Your task to perform on an android device: Open Amazon Image 0: 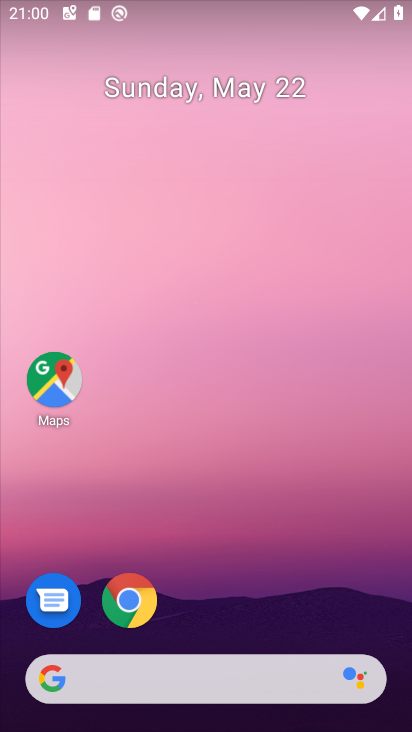
Step 0: click (132, 606)
Your task to perform on an android device: Open Amazon Image 1: 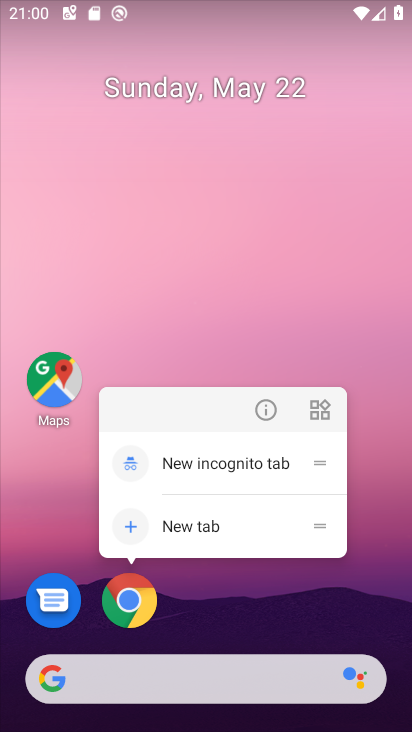
Step 1: click (132, 606)
Your task to perform on an android device: Open Amazon Image 2: 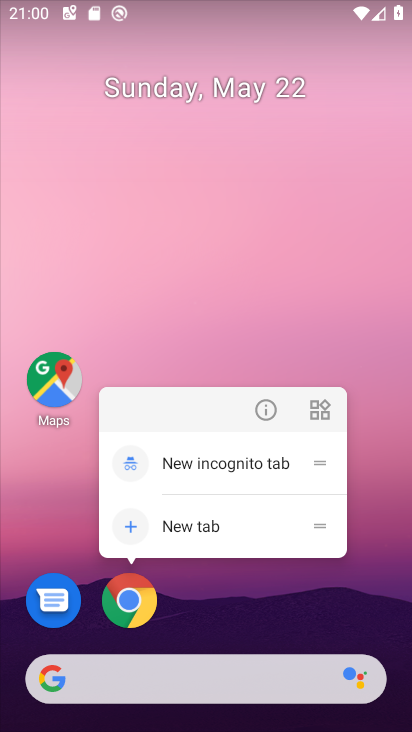
Step 2: click (133, 609)
Your task to perform on an android device: Open Amazon Image 3: 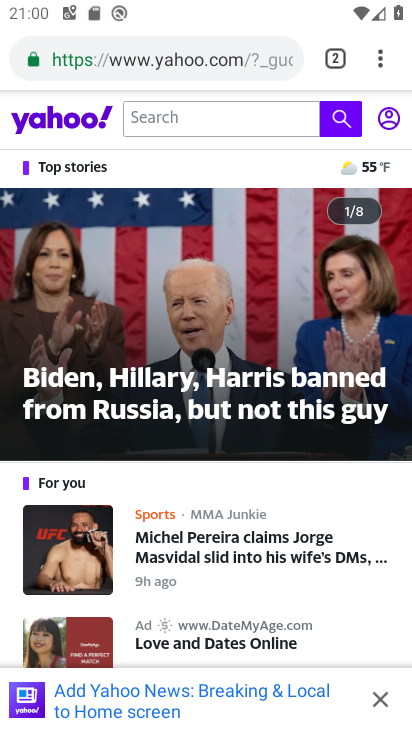
Step 3: click (340, 54)
Your task to perform on an android device: Open Amazon Image 4: 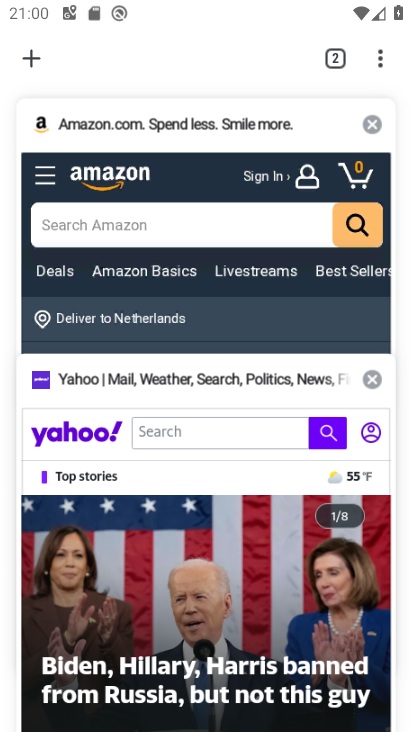
Step 4: click (207, 175)
Your task to perform on an android device: Open Amazon Image 5: 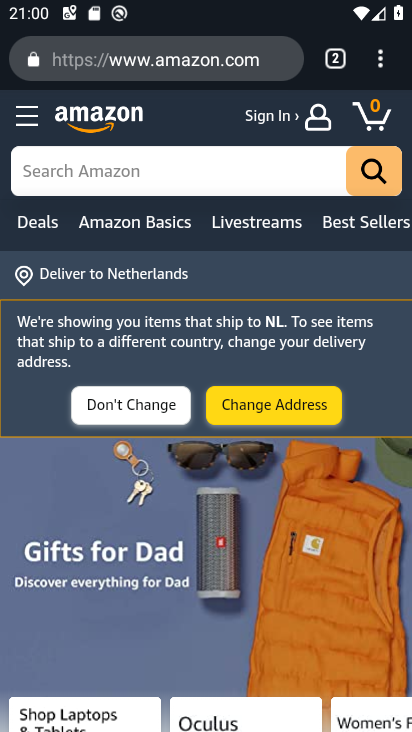
Step 5: task complete